Your task to perform on an android device: open chrome privacy settings Image 0: 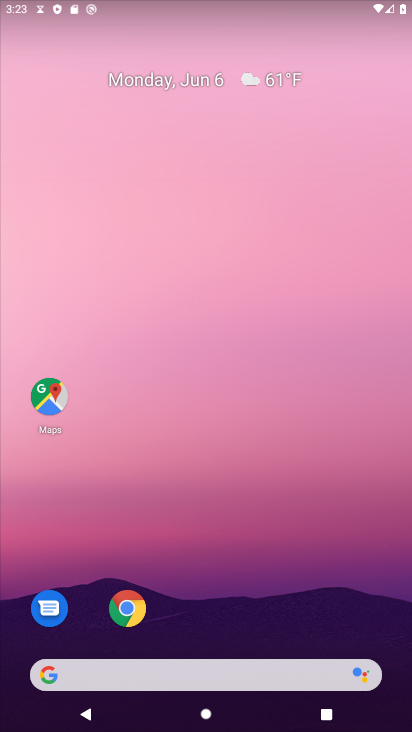
Step 0: click (134, 600)
Your task to perform on an android device: open chrome privacy settings Image 1: 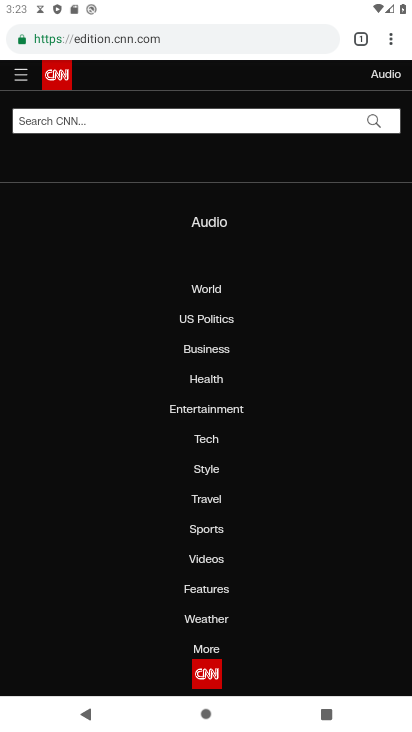
Step 1: click (393, 42)
Your task to perform on an android device: open chrome privacy settings Image 2: 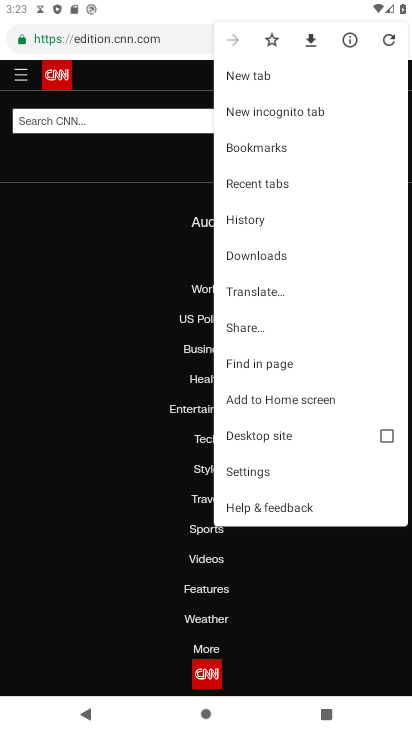
Step 2: click (272, 471)
Your task to perform on an android device: open chrome privacy settings Image 3: 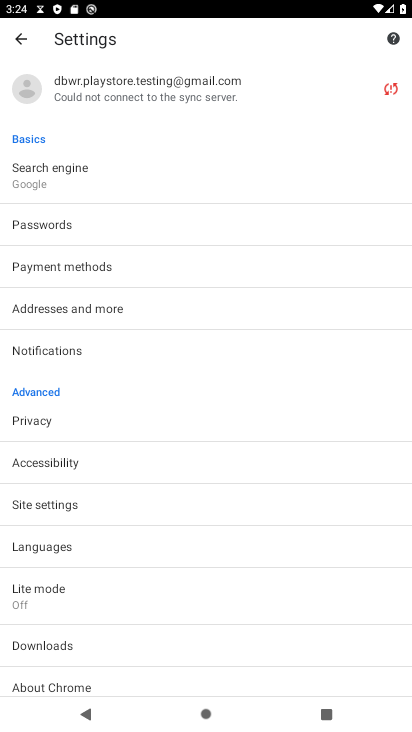
Step 3: click (45, 419)
Your task to perform on an android device: open chrome privacy settings Image 4: 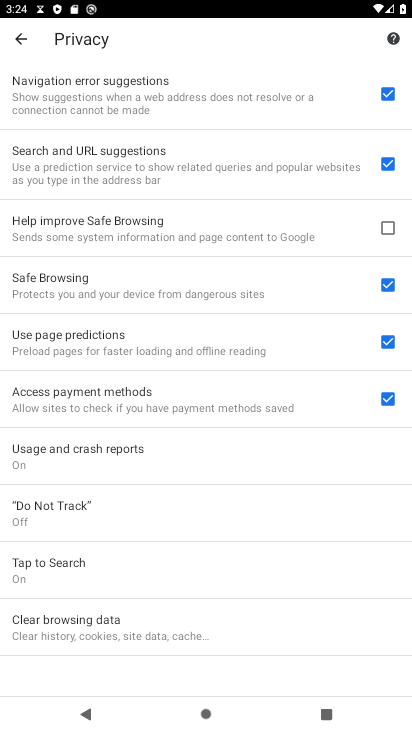
Step 4: task complete